Your task to perform on an android device: Go to internet settings Image 0: 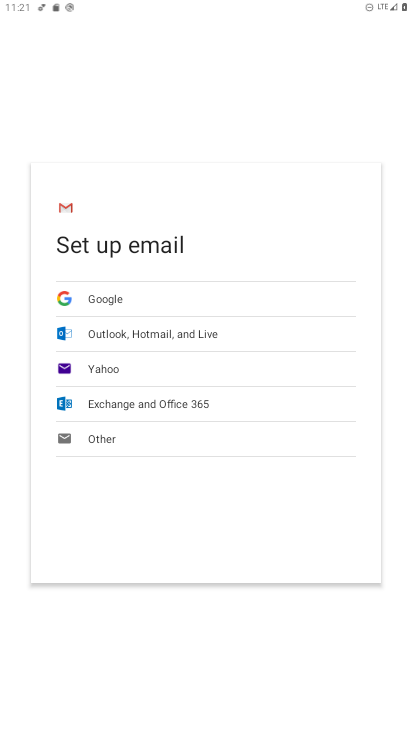
Step 0: press home button
Your task to perform on an android device: Go to internet settings Image 1: 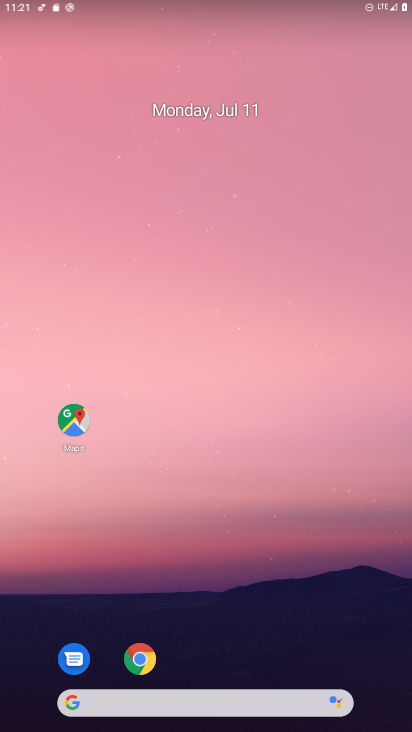
Step 1: drag from (329, 624) to (311, 225)
Your task to perform on an android device: Go to internet settings Image 2: 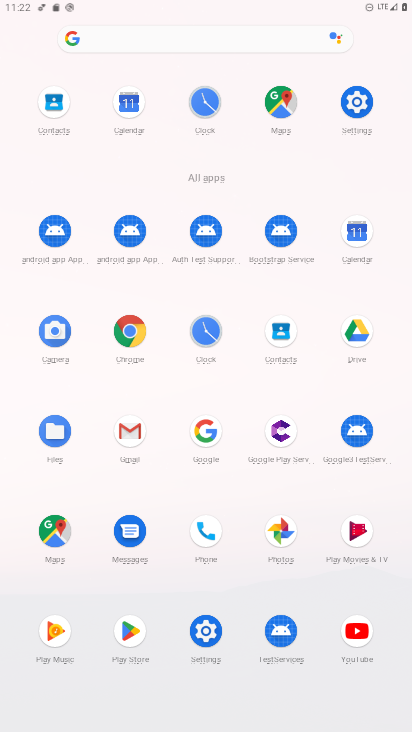
Step 2: click (357, 105)
Your task to perform on an android device: Go to internet settings Image 3: 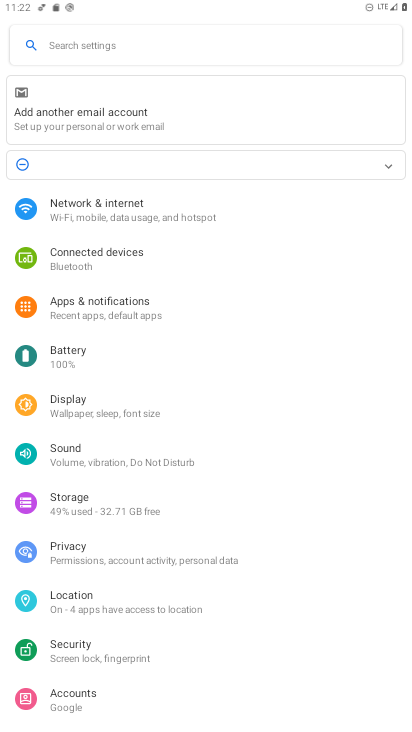
Step 3: click (235, 224)
Your task to perform on an android device: Go to internet settings Image 4: 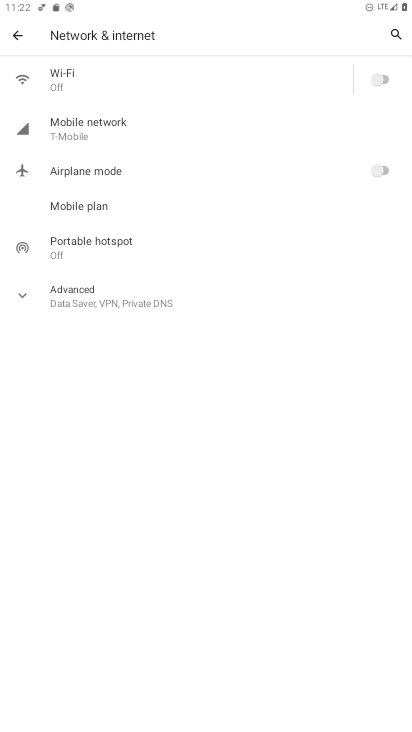
Step 4: task complete